Your task to perform on an android device: Open Google Image 0: 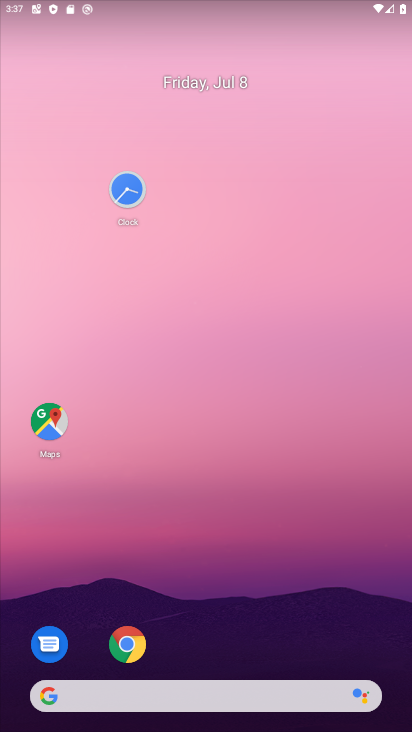
Step 0: drag from (266, 695) to (173, 226)
Your task to perform on an android device: Open Google Image 1: 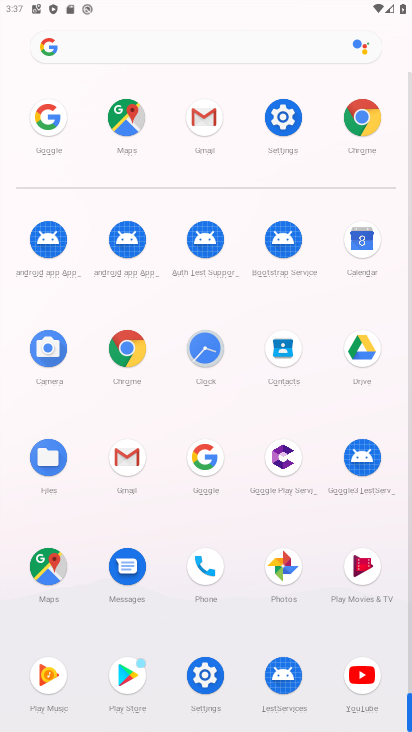
Step 1: click (126, 347)
Your task to perform on an android device: Open Google Image 2: 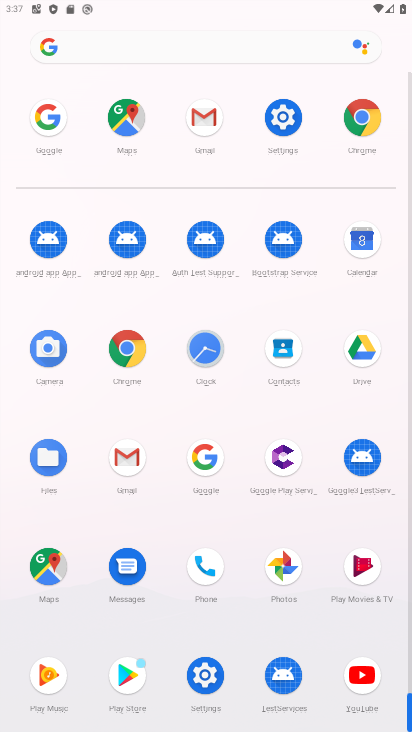
Step 2: click (127, 348)
Your task to perform on an android device: Open Google Image 3: 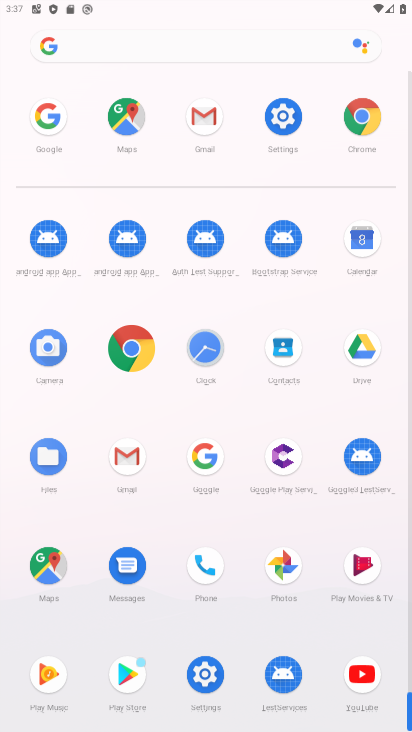
Step 3: click (127, 348)
Your task to perform on an android device: Open Google Image 4: 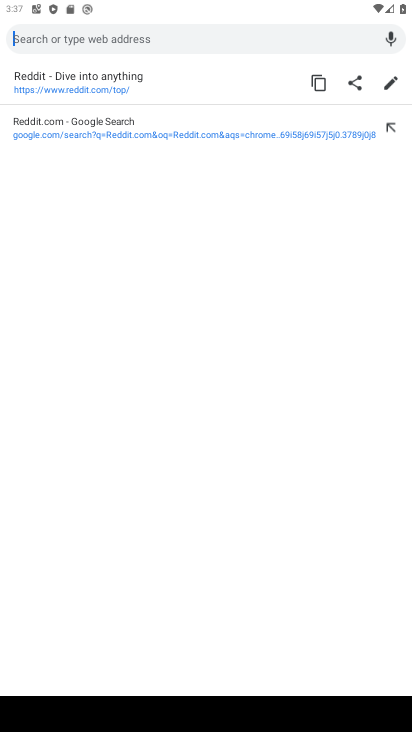
Step 4: task complete